Your task to perform on an android device: toggle pop-ups in chrome Image 0: 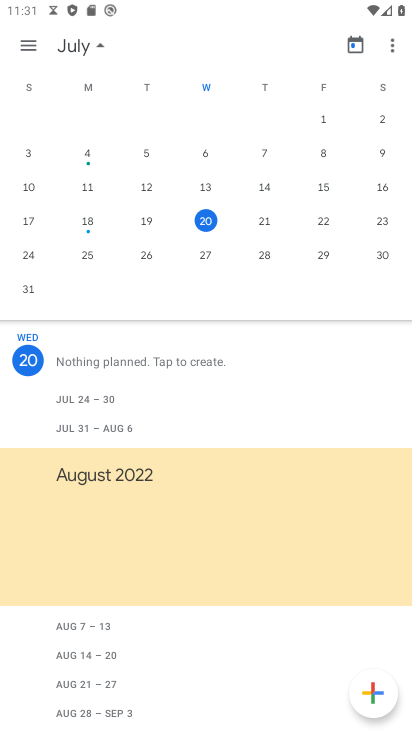
Step 0: press home button
Your task to perform on an android device: toggle pop-ups in chrome Image 1: 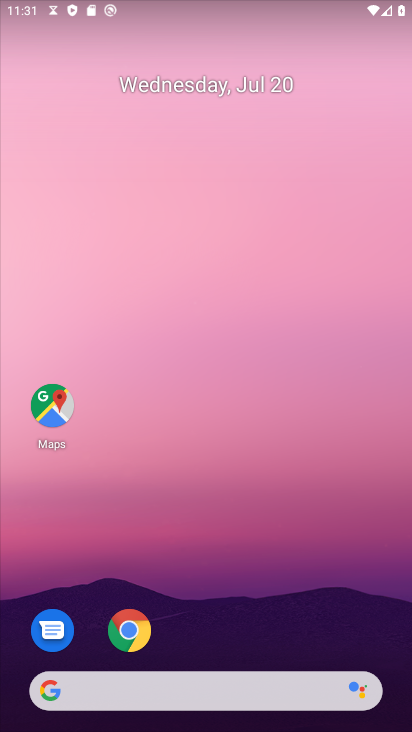
Step 1: click (145, 630)
Your task to perform on an android device: toggle pop-ups in chrome Image 2: 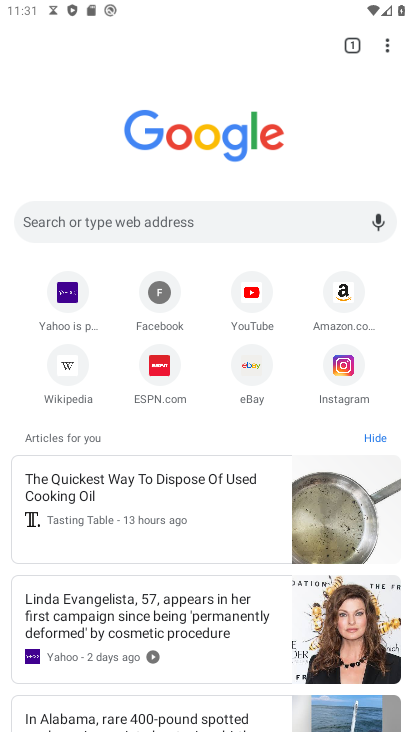
Step 2: click (386, 41)
Your task to perform on an android device: toggle pop-ups in chrome Image 3: 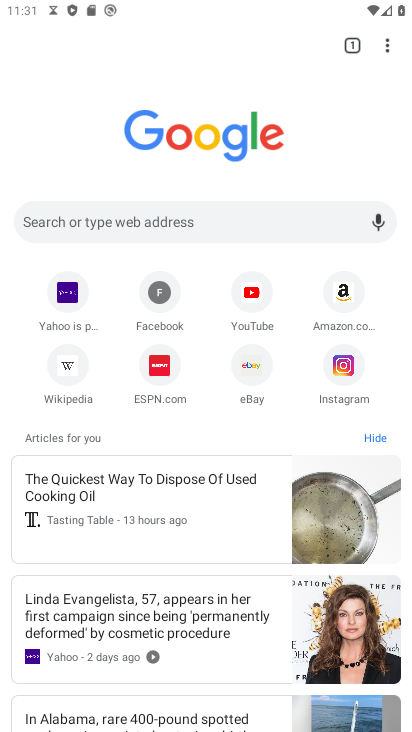
Step 3: click (388, 45)
Your task to perform on an android device: toggle pop-ups in chrome Image 4: 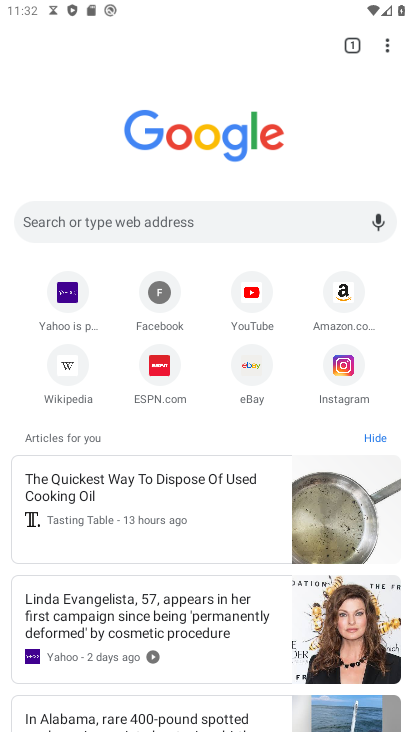
Step 4: click (388, 45)
Your task to perform on an android device: toggle pop-ups in chrome Image 5: 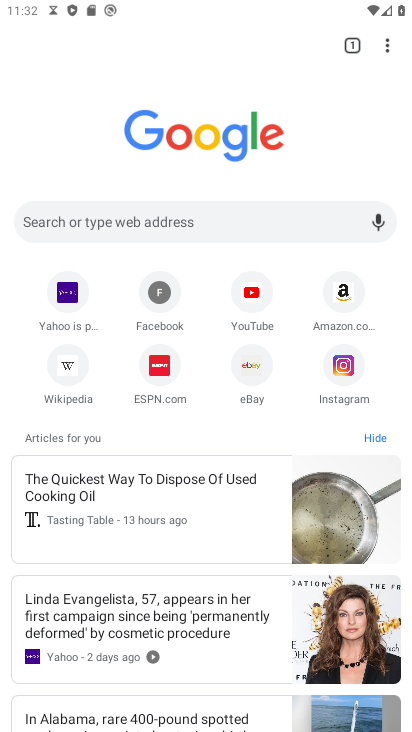
Step 5: click (391, 43)
Your task to perform on an android device: toggle pop-ups in chrome Image 6: 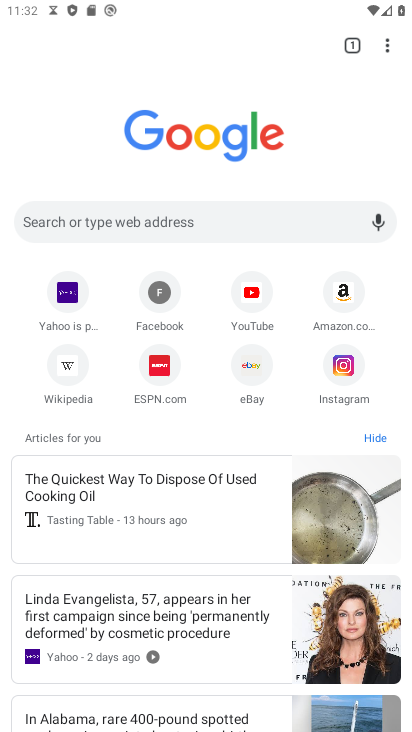
Step 6: task complete